Your task to perform on an android device: choose inbox layout in the gmail app Image 0: 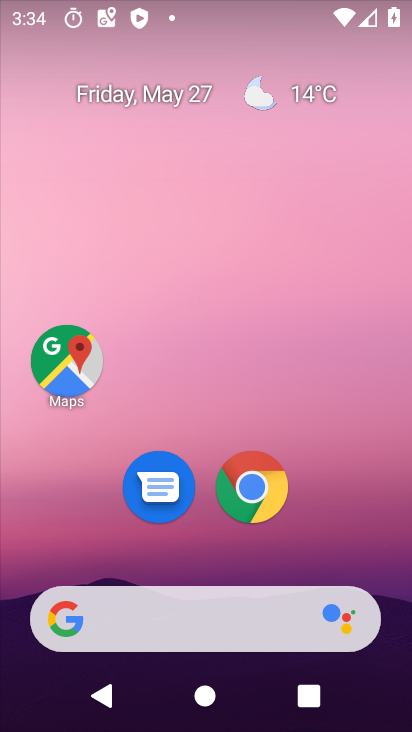
Step 0: drag from (336, 503) to (296, 53)
Your task to perform on an android device: choose inbox layout in the gmail app Image 1: 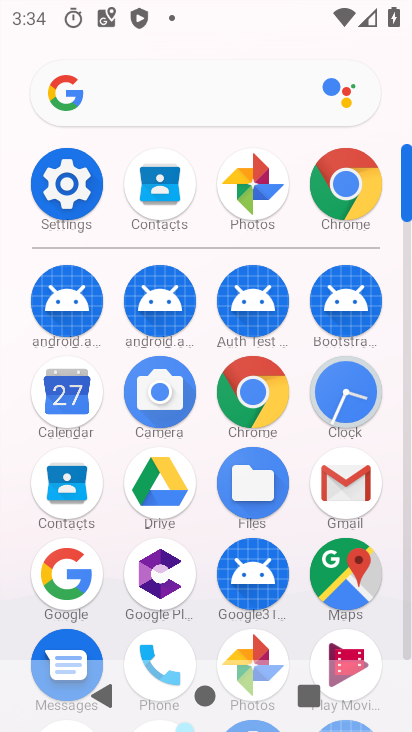
Step 1: click (350, 472)
Your task to perform on an android device: choose inbox layout in the gmail app Image 2: 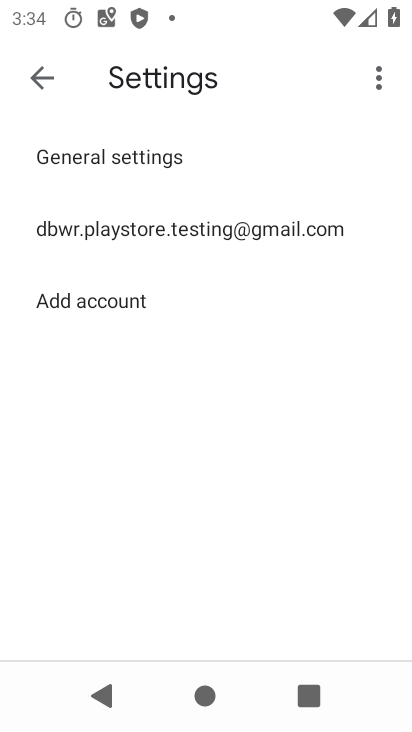
Step 2: click (65, 211)
Your task to perform on an android device: choose inbox layout in the gmail app Image 3: 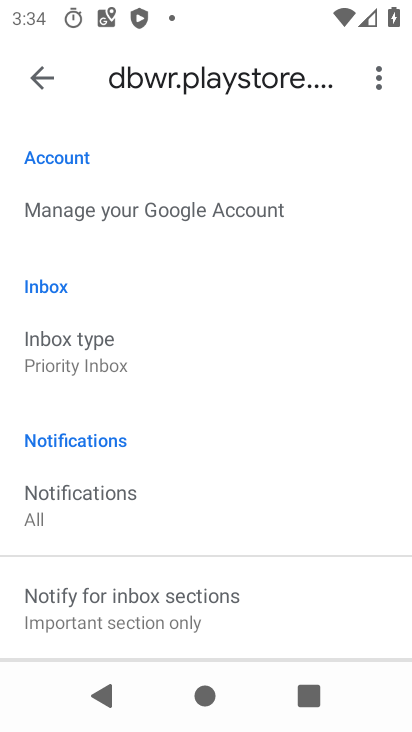
Step 3: click (116, 346)
Your task to perform on an android device: choose inbox layout in the gmail app Image 4: 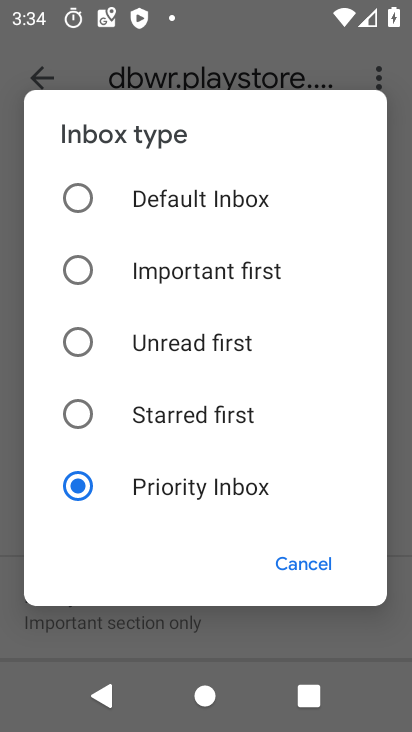
Step 4: task complete